Your task to perform on an android device: When is my next meeting? Image 0: 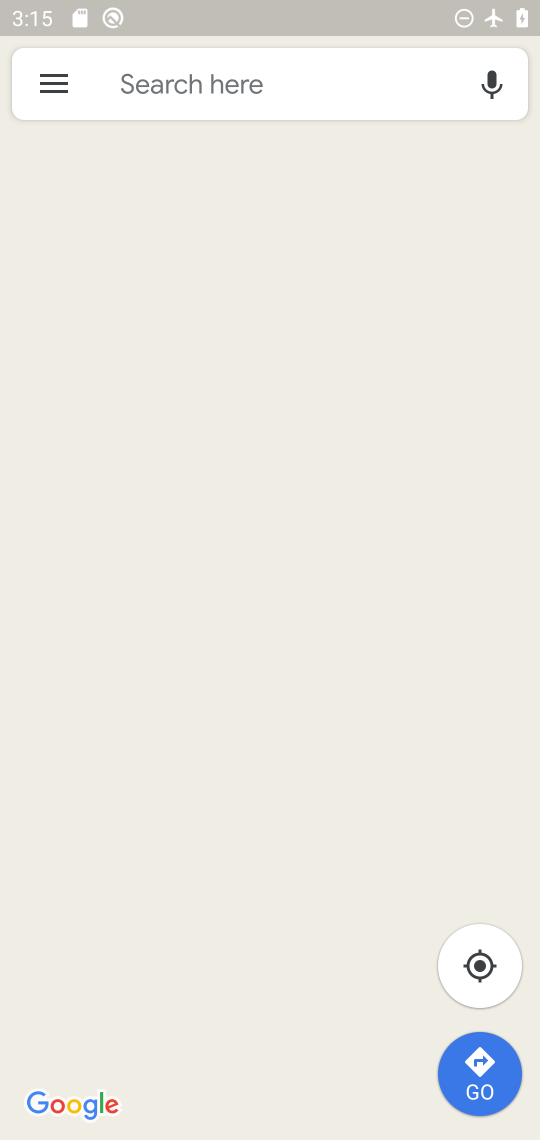
Step 0: press home button
Your task to perform on an android device: When is my next meeting? Image 1: 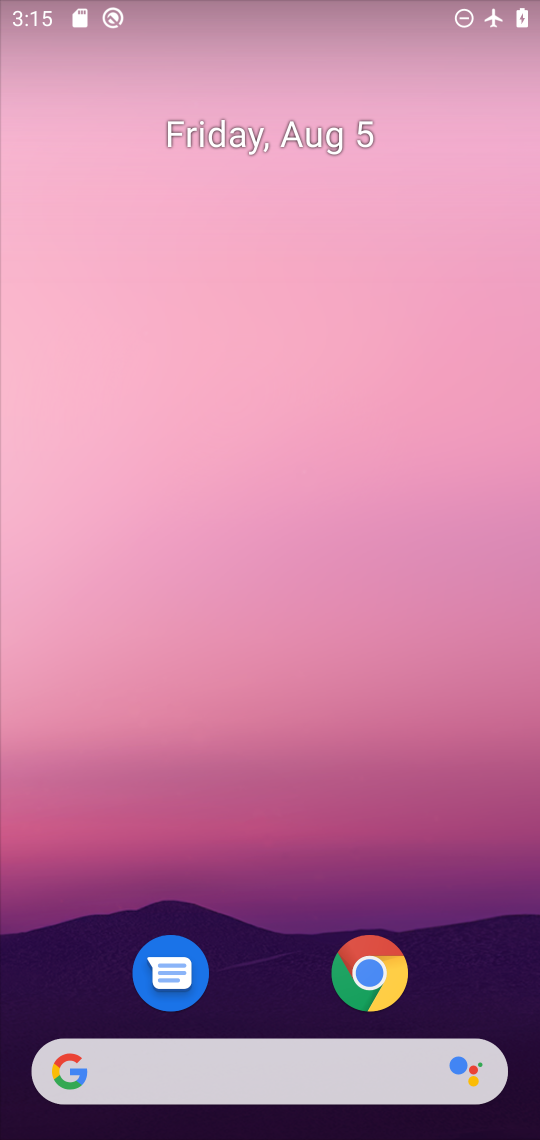
Step 1: drag from (287, 1074) to (185, 192)
Your task to perform on an android device: When is my next meeting? Image 2: 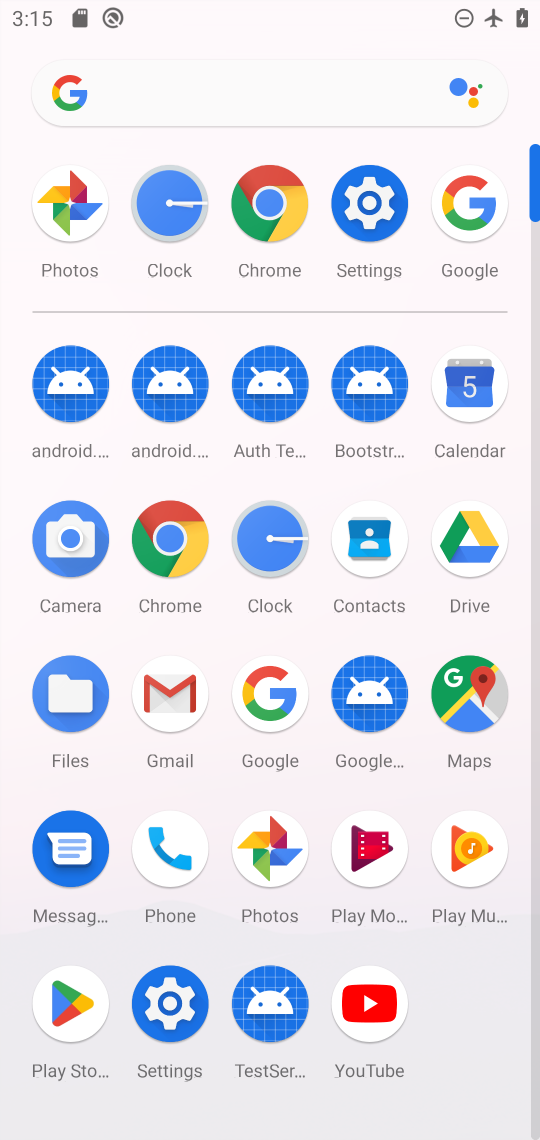
Step 2: click (468, 391)
Your task to perform on an android device: When is my next meeting? Image 3: 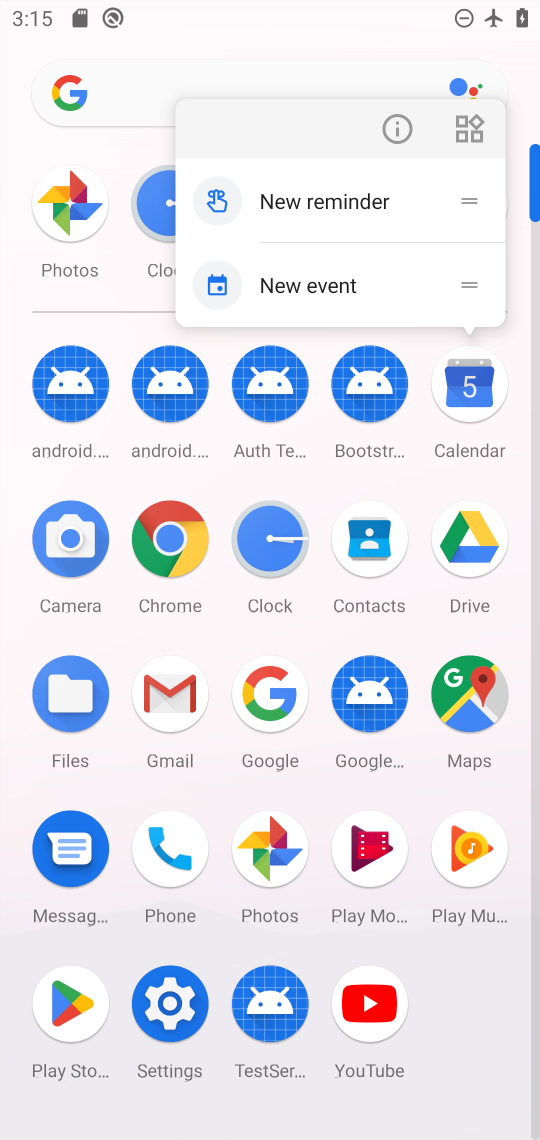
Step 3: click (441, 398)
Your task to perform on an android device: When is my next meeting? Image 4: 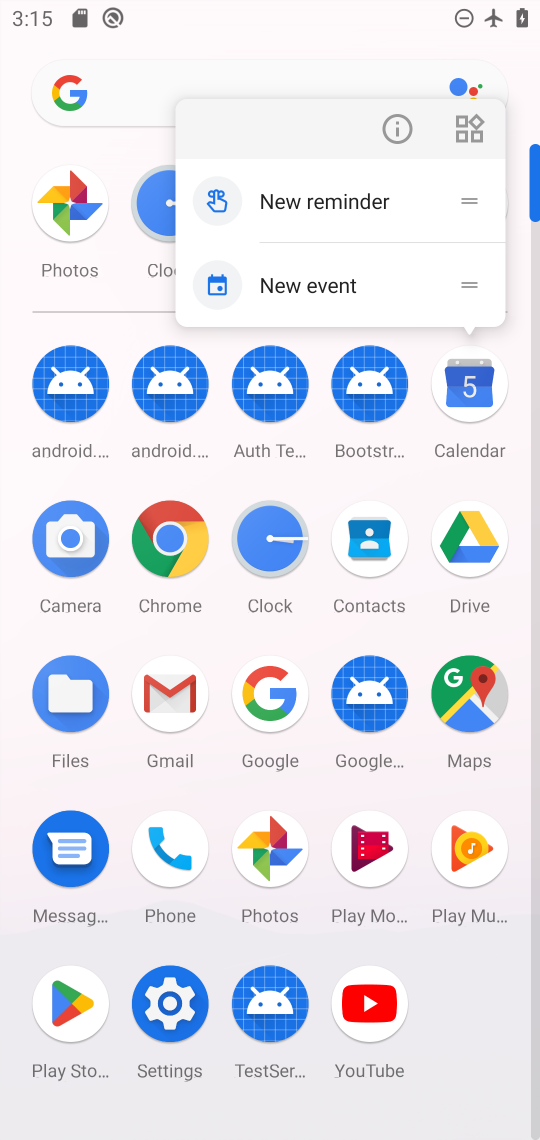
Step 4: click (459, 390)
Your task to perform on an android device: When is my next meeting? Image 5: 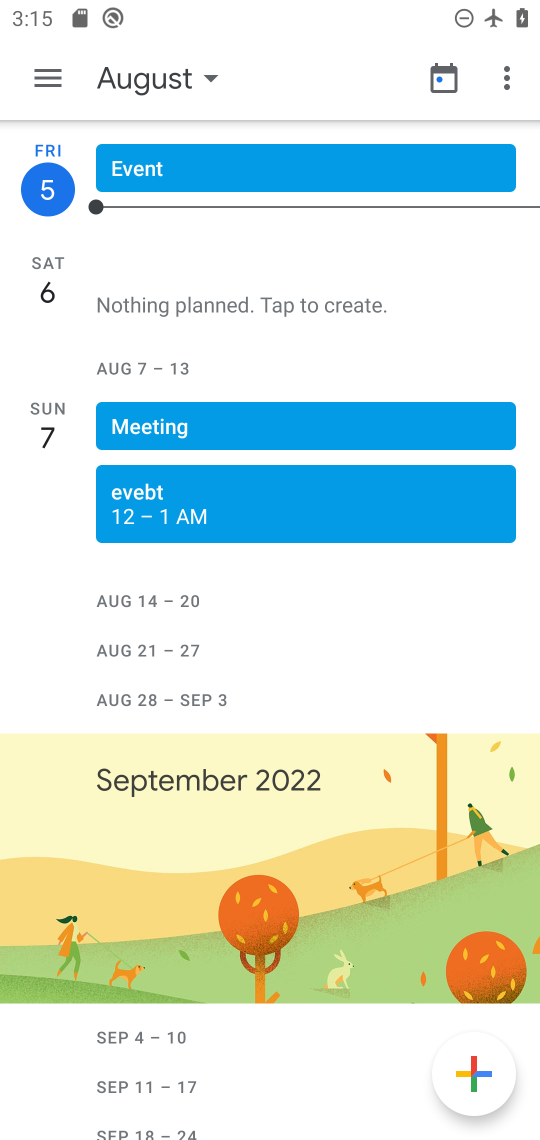
Step 5: click (32, 274)
Your task to perform on an android device: When is my next meeting? Image 6: 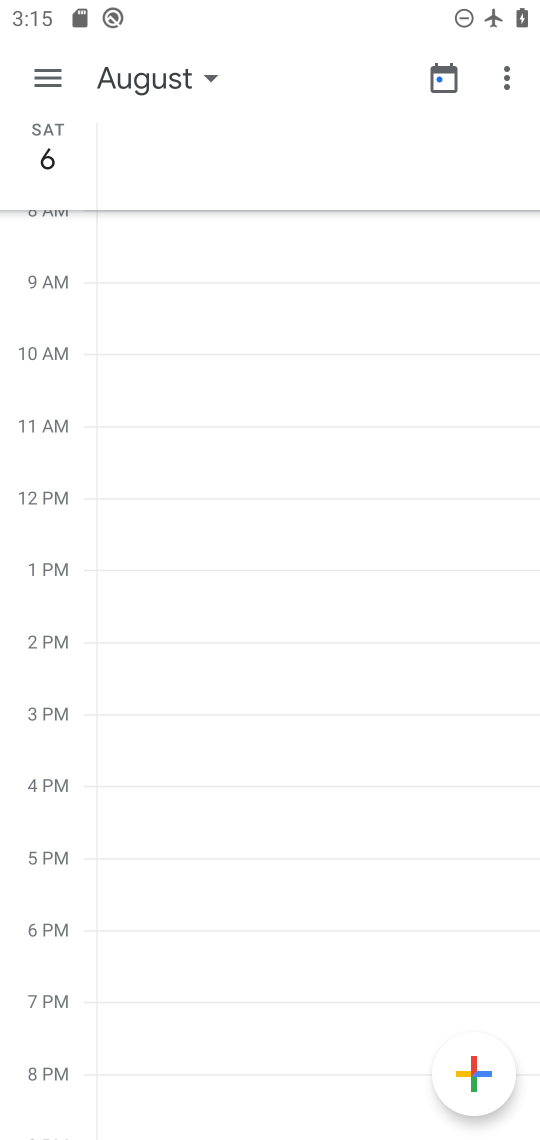
Step 6: click (51, 68)
Your task to perform on an android device: When is my next meeting? Image 7: 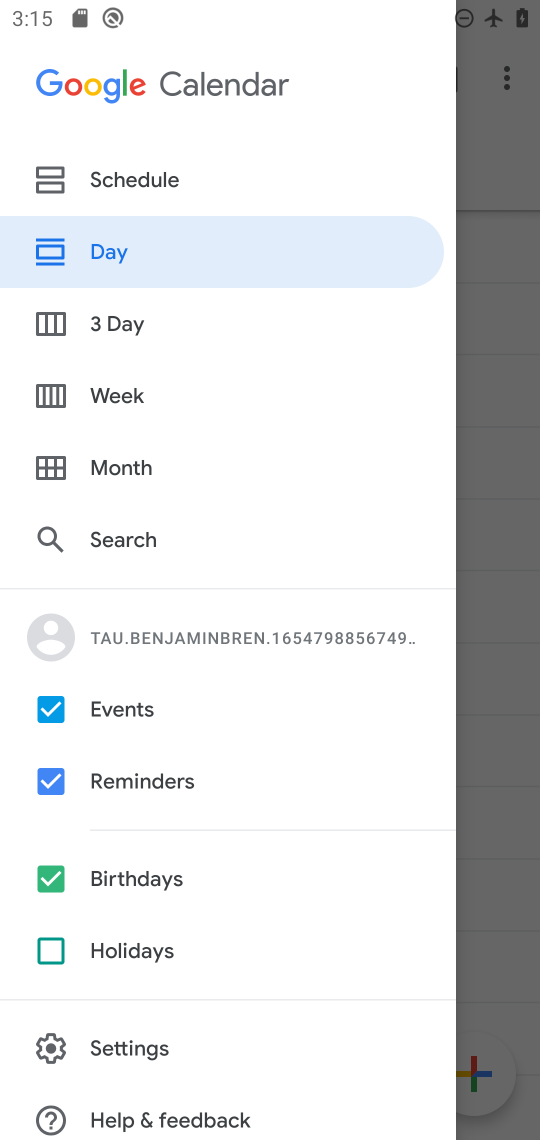
Step 7: click (128, 389)
Your task to perform on an android device: When is my next meeting? Image 8: 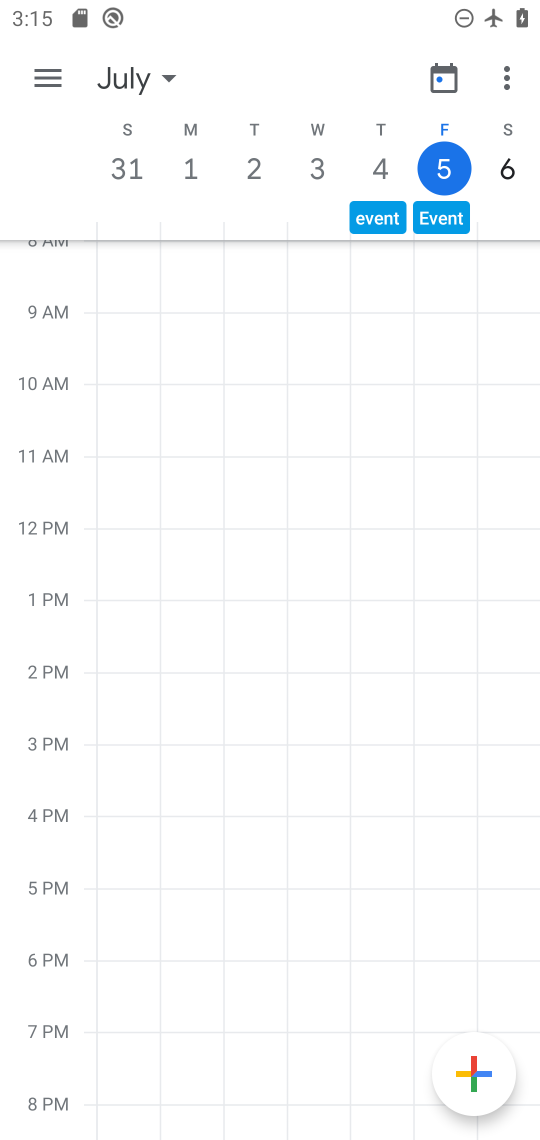
Step 8: drag from (436, 147) to (223, 195)
Your task to perform on an android device: When is my next meeting? Image 9: 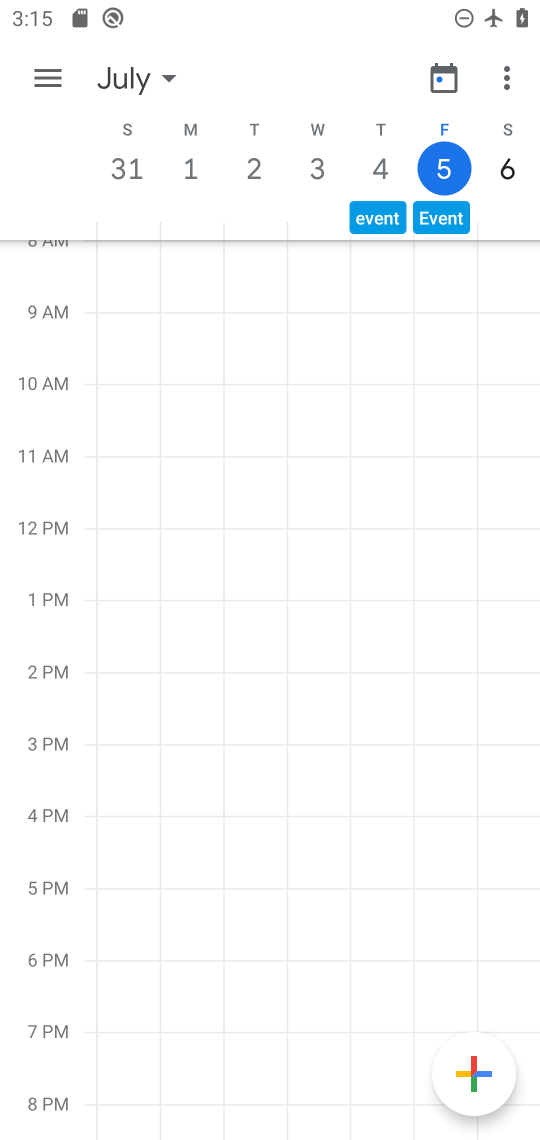
Step 9: drag from (490, 165) to (24, 192)
Your task to perform on an android device: When is my next meeting? Image 10: 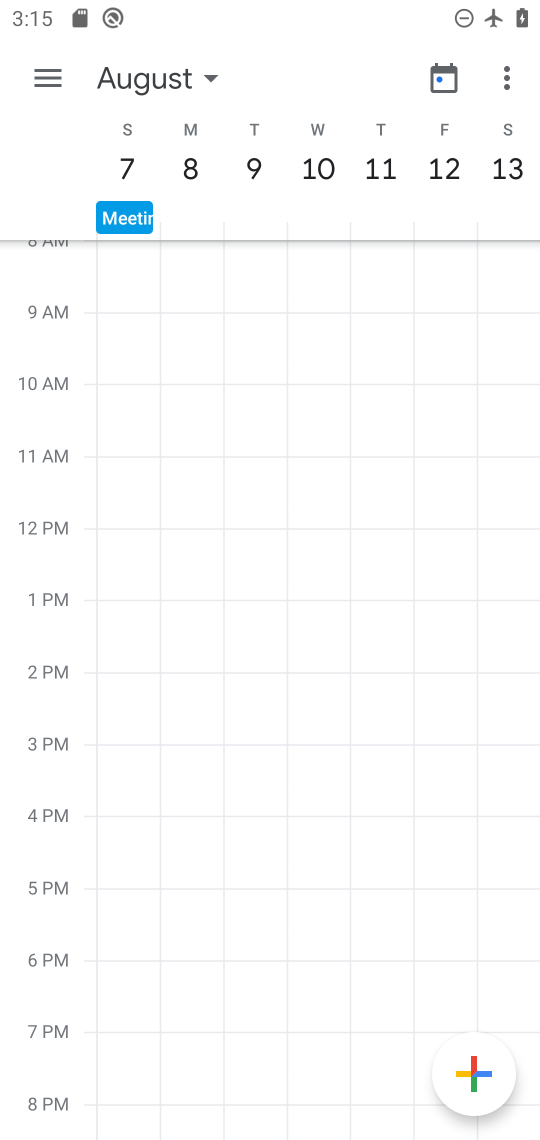
Step 10: click (128, 162)
Your task to perform on an android device: When is my next meeting? Image 11: 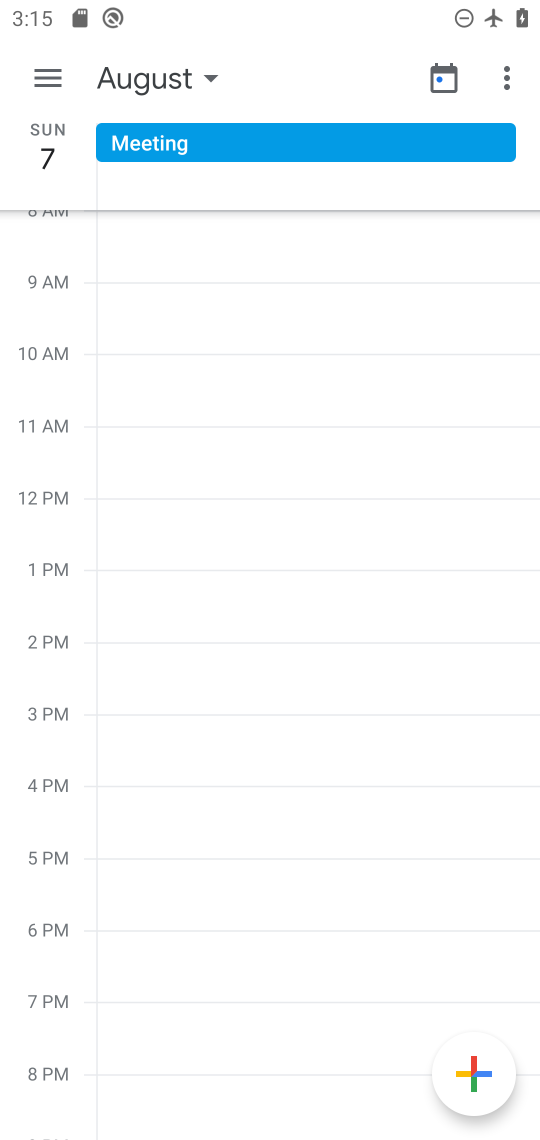
Step 11: task complete